Your task to perform on an android device: Open calendar and show me the second week of next month Image 0: 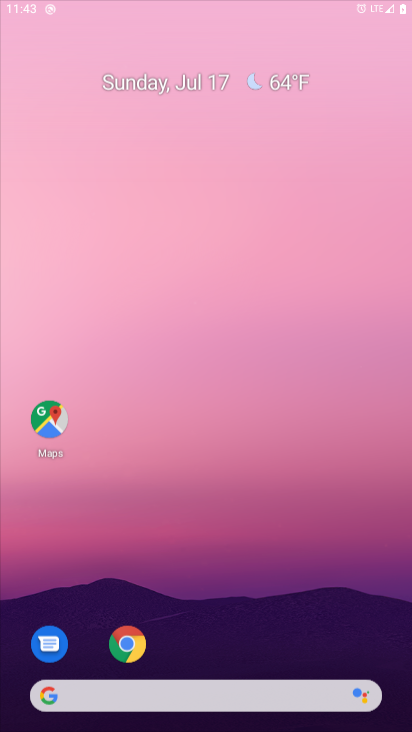
Step 0: press home button
Your task to perform on an android device: Open calendar and show me the second week of next month Image 1: 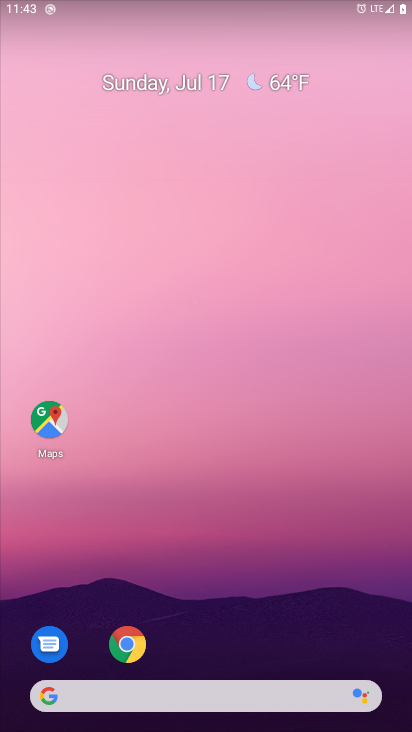
Step 1: drag from (289, 615) to (291, 65)
Your task to perform on an android device: Open calendar and show me the second week of next month Image 2: 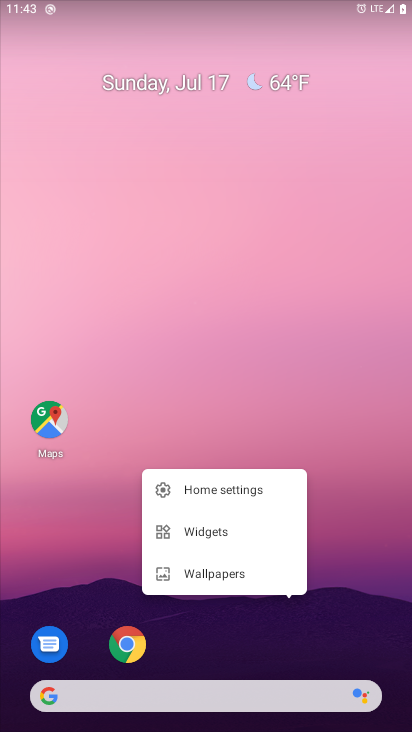
Step 2: drag from (359, 597) to (384, 116)
Your task to perform on an android device: Open calendar and show me the second week of next month Image 3: 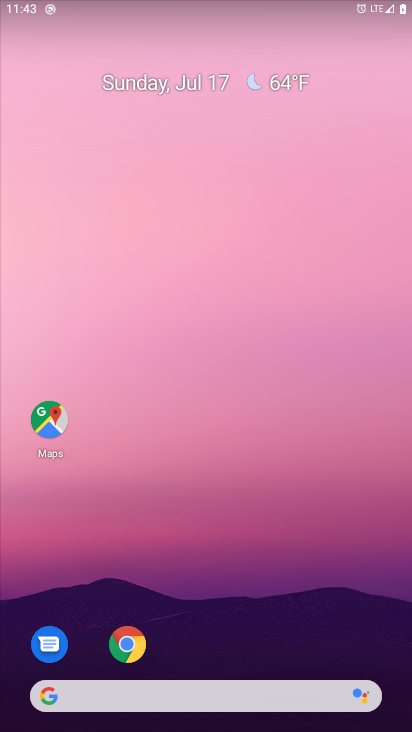
Step 3: drag from (311, 609) to (330, 5)
Your task to perform on an android device: Open calendar and show me the second week of next month Image 4: 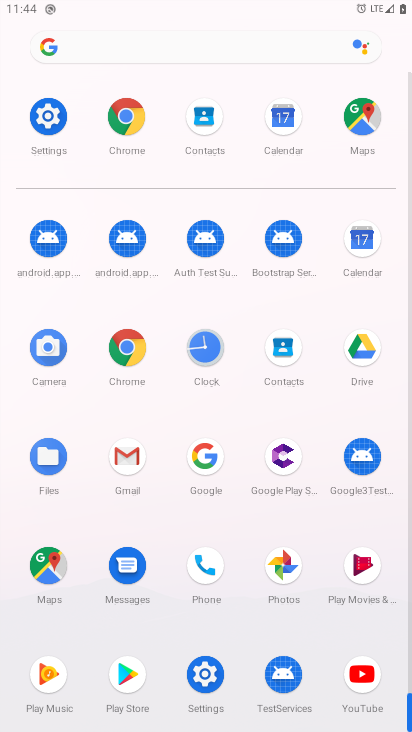
Step 4: click (284, 122)
Your task to perform on an android device: Open calendar and show me the second week of next month Image 5: 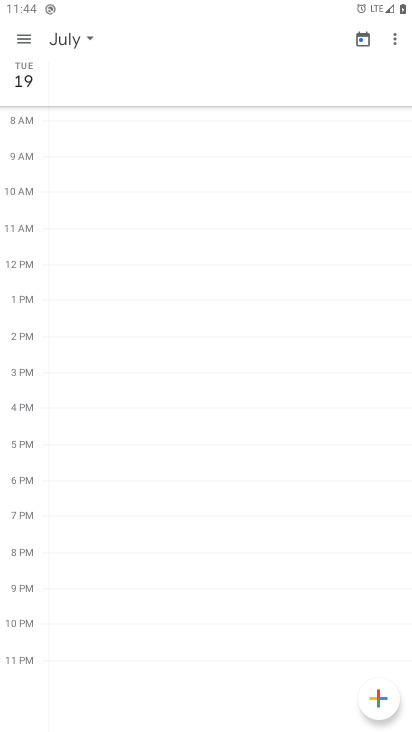
Step 5: click (21, 44)
Your task to perform on an android device: Open calendar and show me the second week of next month Image 6: 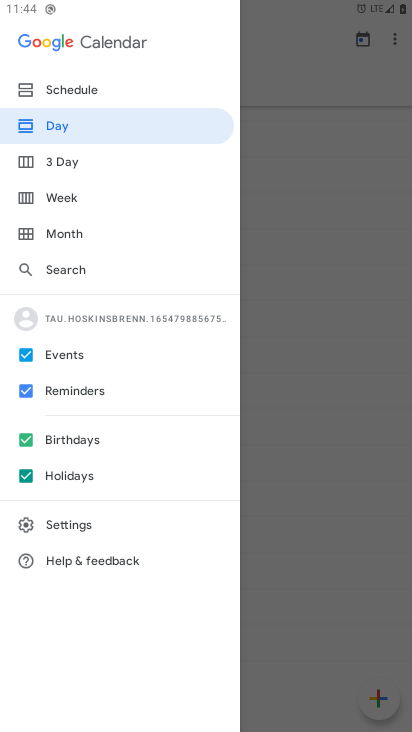
Step 6: click (62, 231)
Your task to perform on an android device: Open calendar and show me the second week of next month Image 7: 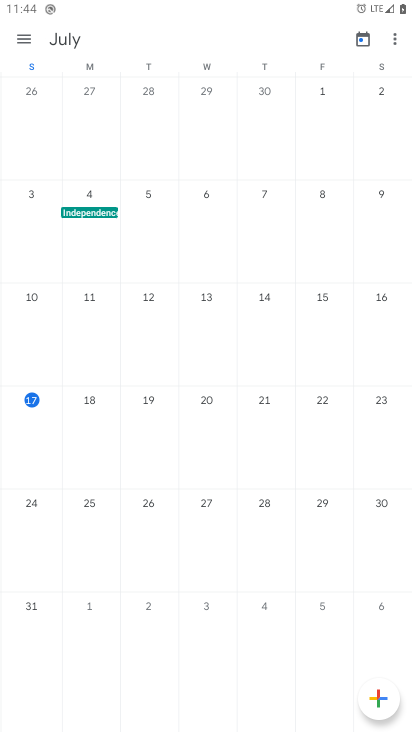
Step 7: task complete